Your task to perform on an android device: Open Yahoo.com Image 0: 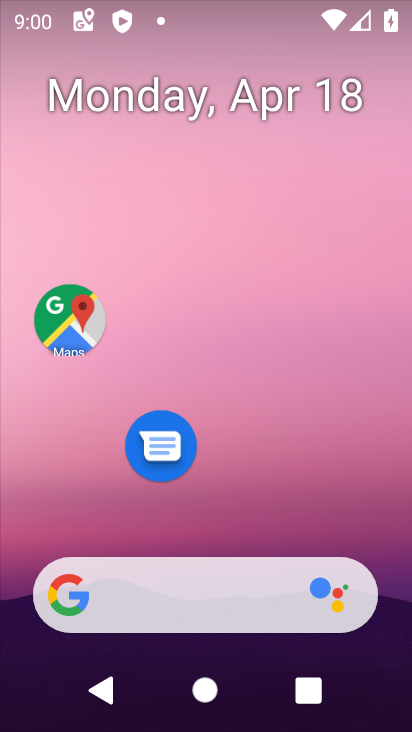
Step 0: press home button
Your task to perform on an android device: Open Yahoo.com Image 1: 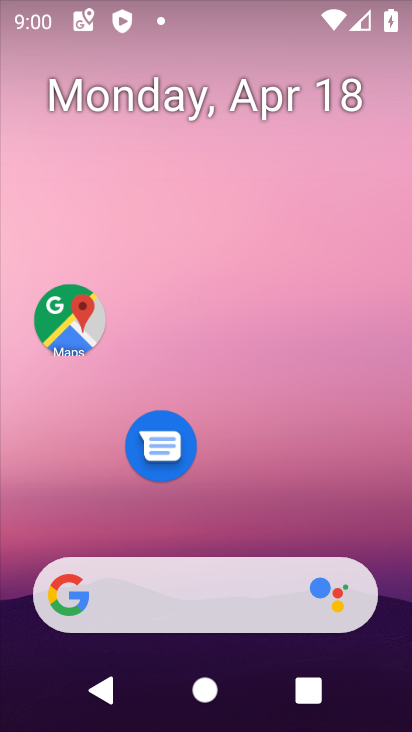
Step 1: drag from (233, 520) to (272, 38)
Your task to perform on an android device: Open Yahoo.com Image 2: 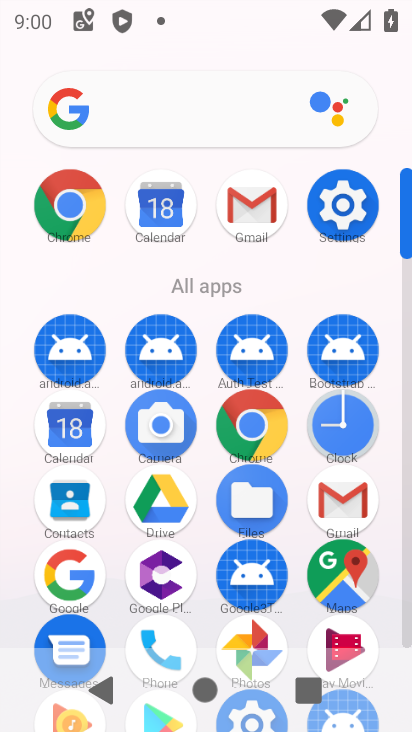
Step 2: click (246, 414)
Your task to perform on an android device: Open Yahoo.com Image 3: 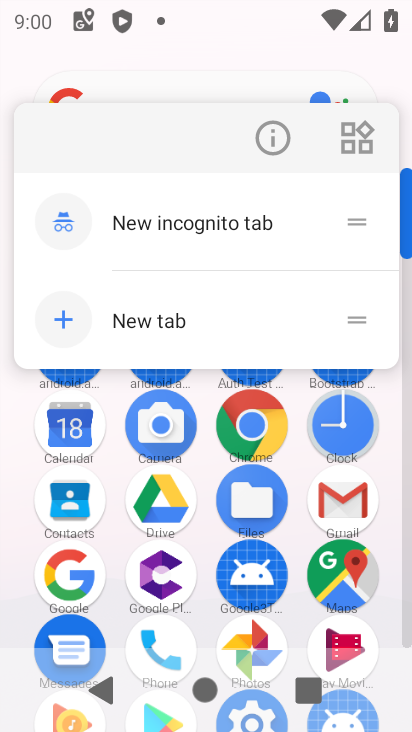
Step 3: click (247, 419)
Your task to perform on an android device: Open Yahoo.com Image 4: 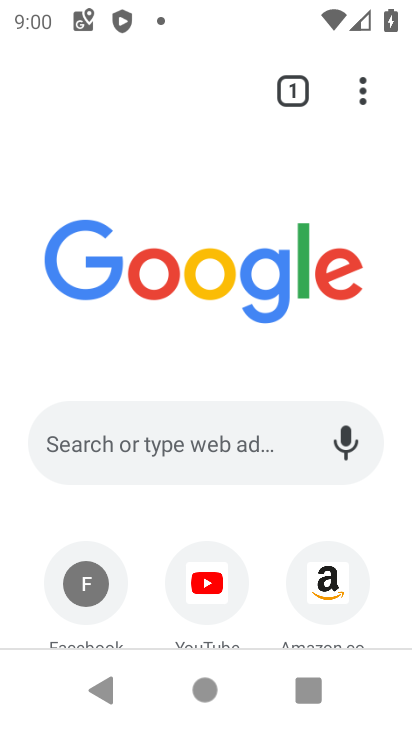
Step 4: drag from (262, 512) to (287, 175)
Your task to perform on an android device: Open Yahoo.com Image 5: 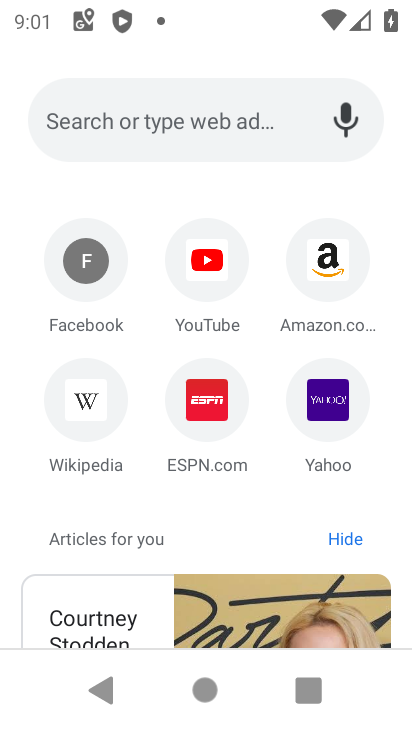
Step 5: click (341, 391)
Your task to perform on an android device: Open Yahoo.com Image 6: 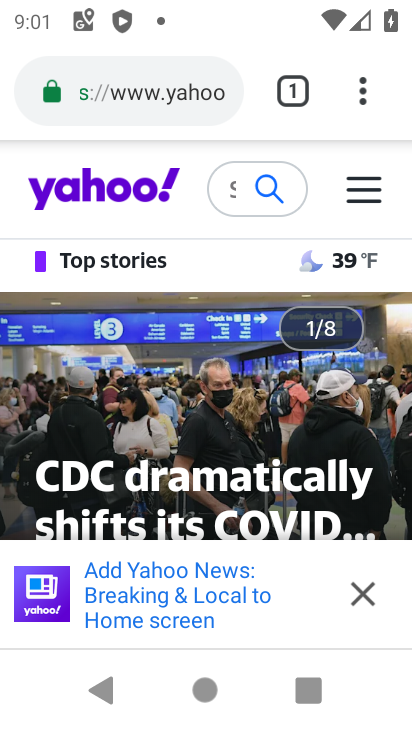
Step 6: task complete